Your task to perform on an android device: check data usage Image 0: 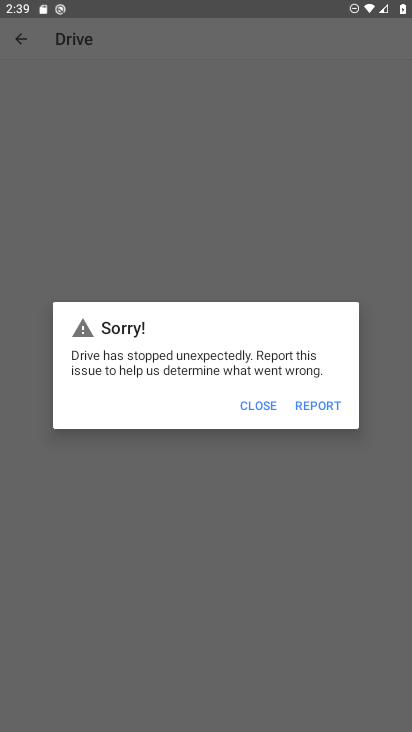
Step 0: press home button
Your task to perform on an android device: check data usage Image 1: 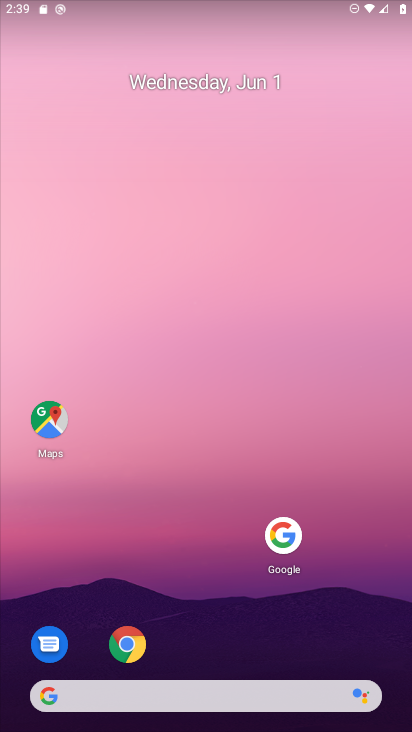
Step 1: drag from (213, 696) to (303, 58)
Your task to perform on an android device: check data usage Image 2: 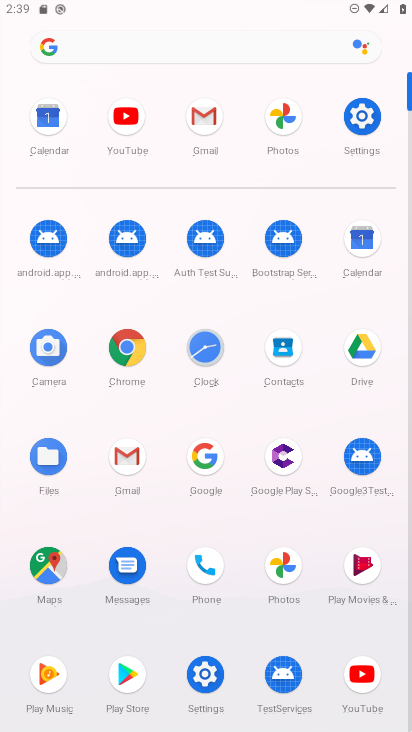
Step 2: click (366, 117)
Your task to perform on an android device: check data usage Image 3: 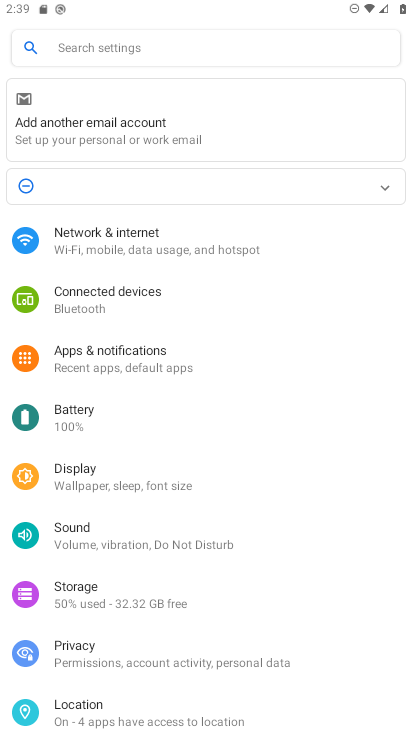
Step 3: click (279, 583)
Your task to perform on an android device: check data usage Image 4: 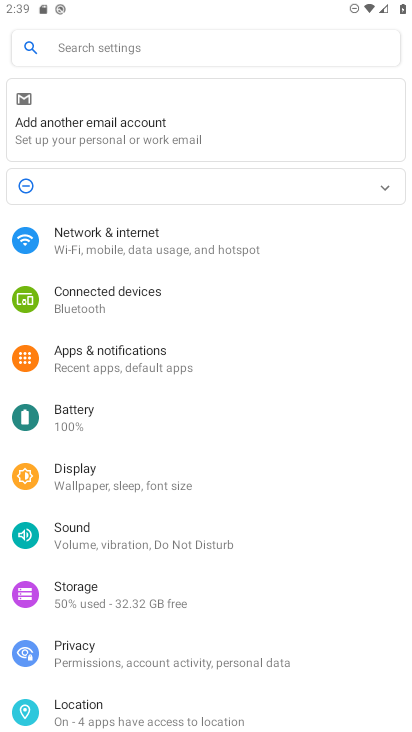
Step 4: click (106, 245)
Your task to perform on an android device: check data usage Image 5: 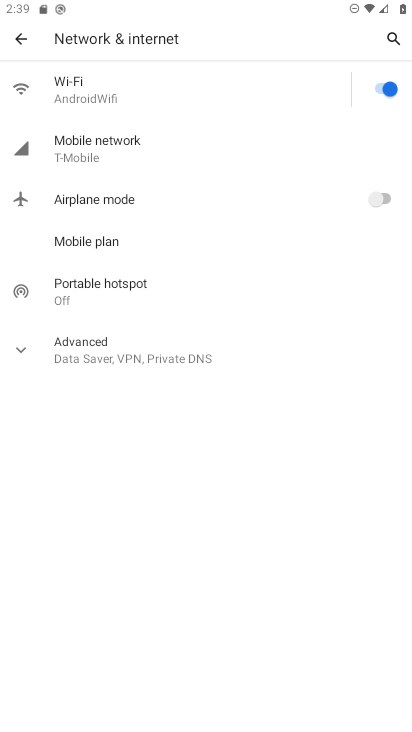
Step 5: click (94, 87)
Your task to perform on an android device: check data usage Image 6: 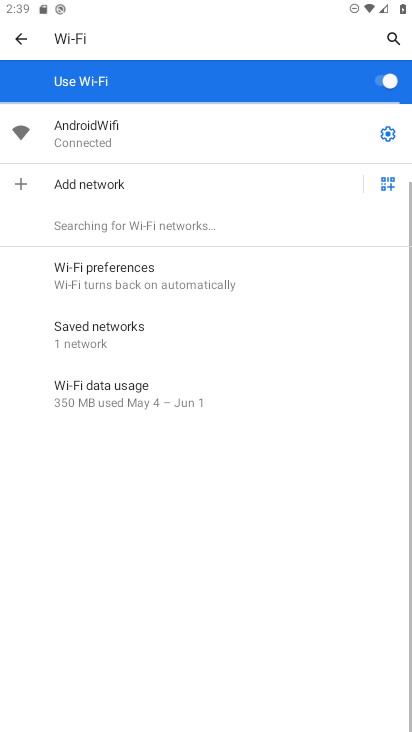
Step 6: click (124, 396)
Your task to perform on an android device: check data usage Image 7: 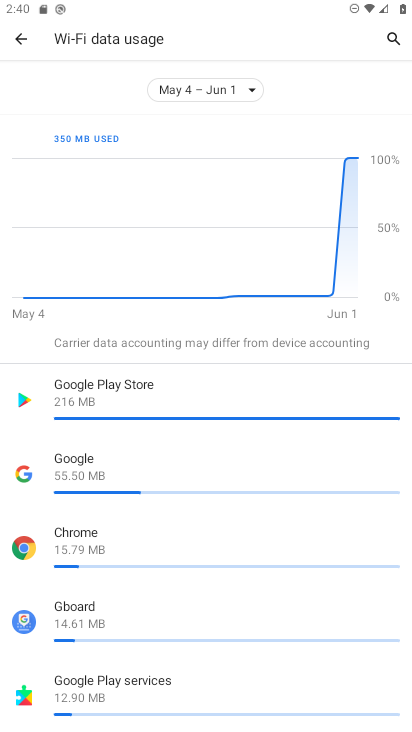
Step 7: task complete